Your task to perform on an android device: turn on showing notifications on the lock screen Image 0: 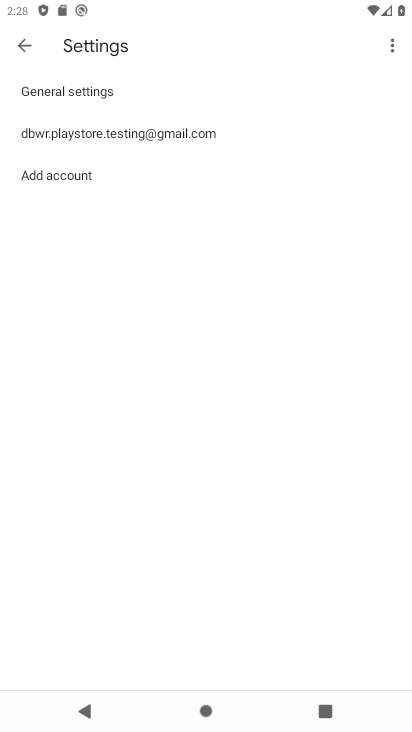
Step 0: press home button
Your task to perform on an android device: turn on showing notifications on the lock screen Image 1: 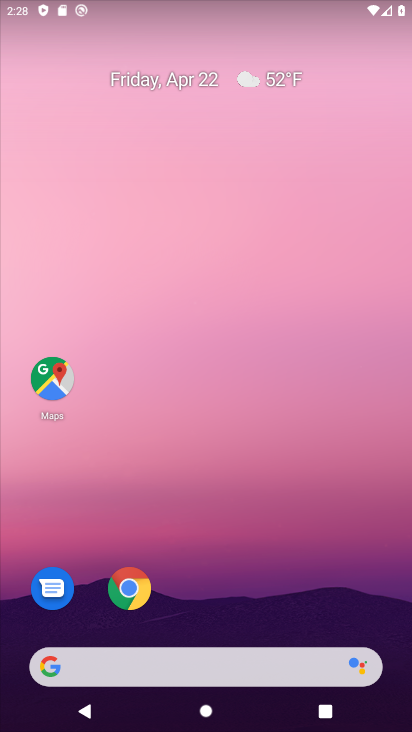
Step 1: drag from (339, 620) to (303, 5)
Your task to perform on an android device: turn on showing notifications on the lock screen Image 2: 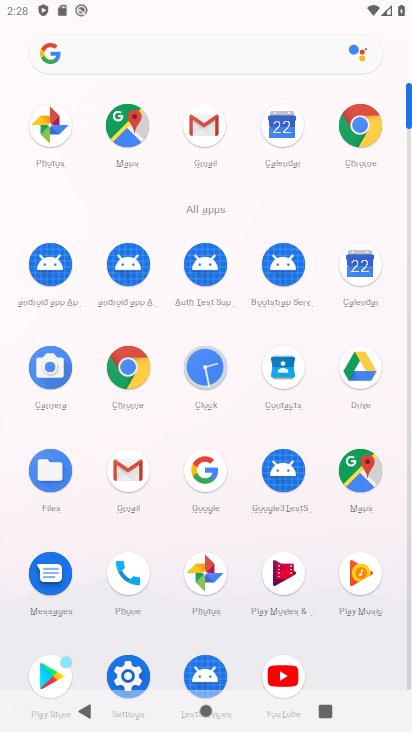
Step 2: click (128, 672)
Your task to perform on an android device: turn on showing notifications on the lock screen Image 3: 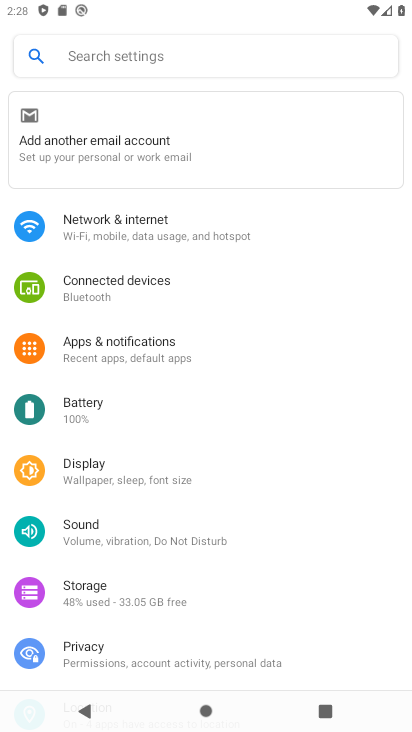
Step 3: click (134, 349)
Your task to perform on an android device: turn on showing notifications on the lock screen Image 4: 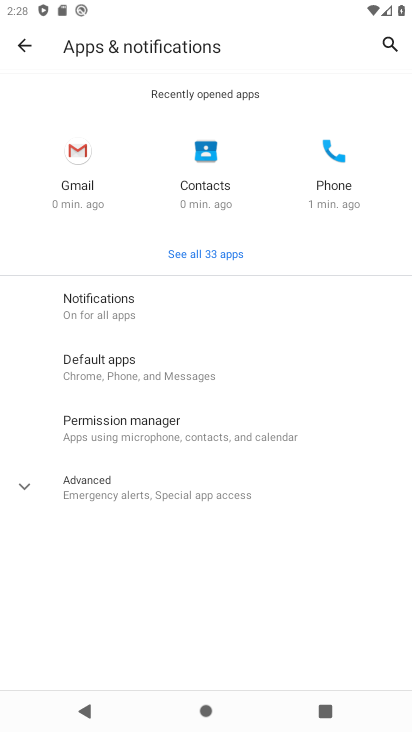
Step 4: click (68, 318)
Your task to perform on an android device: turn on showing notifications on the lock screen Image 5: 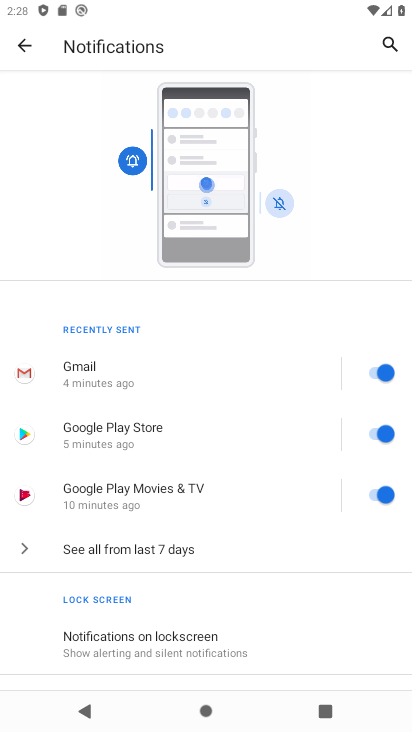
Step 5: drag from (181, 603) to (170, 424)
Your task to perform on an android device: turn on showing notifications on the lock screen Image 6: 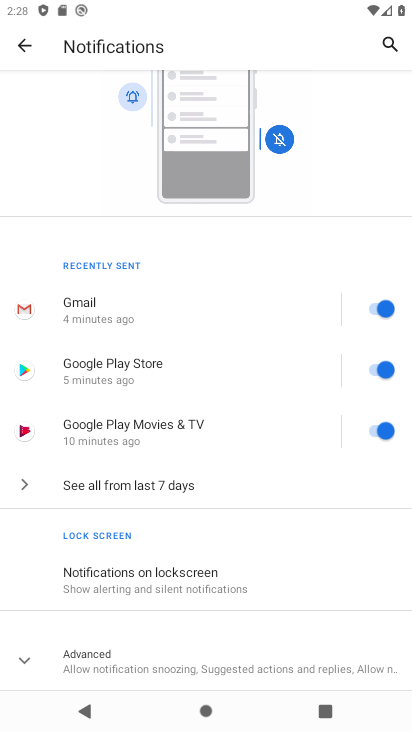
Step 6: click (98, 579)
Your task to perform on an android device: turn on showing notifications on the lock screen Image 7: 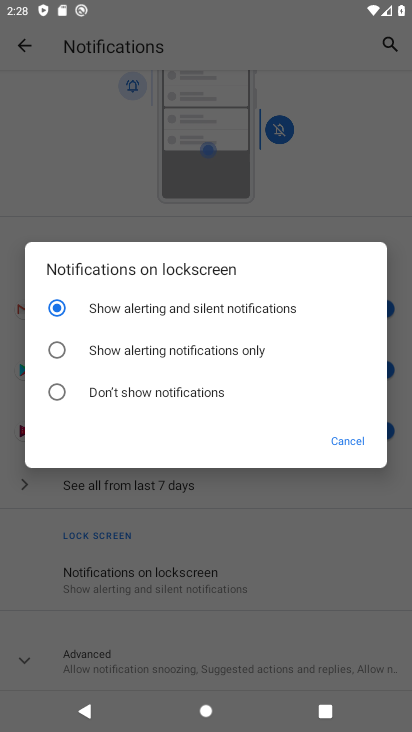
Step 7: task complete